Your task to perform on an android device: turn off sleep mode Image 0: 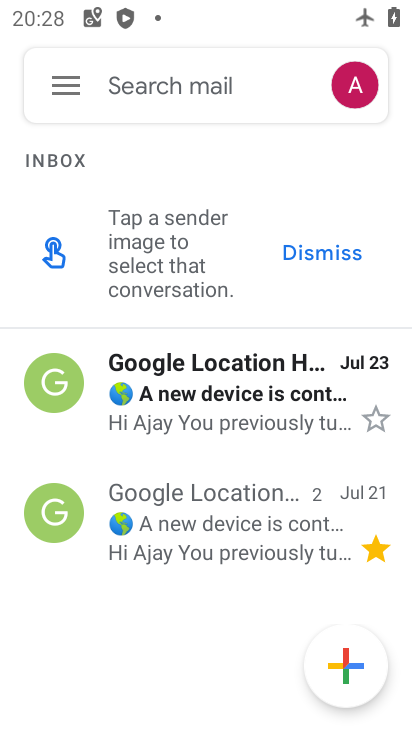
Step 0: press home button
Your task to perform on an android device: turn off sleep mode Image 1: 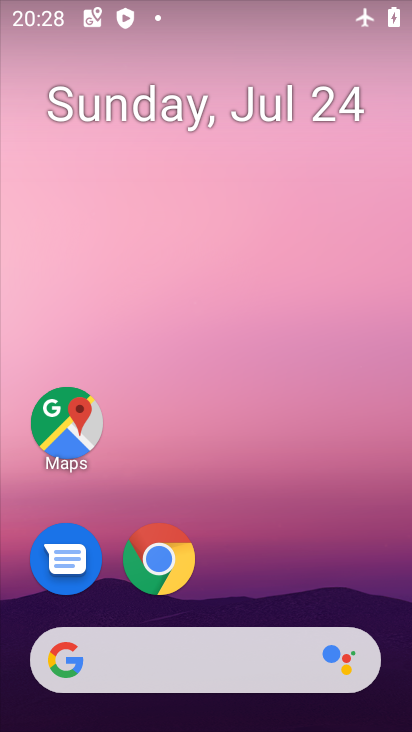
Step 1: drag from (393, 578) to (368, 206)
Your task to perform on an android device: turn off sleep mode Image 2: 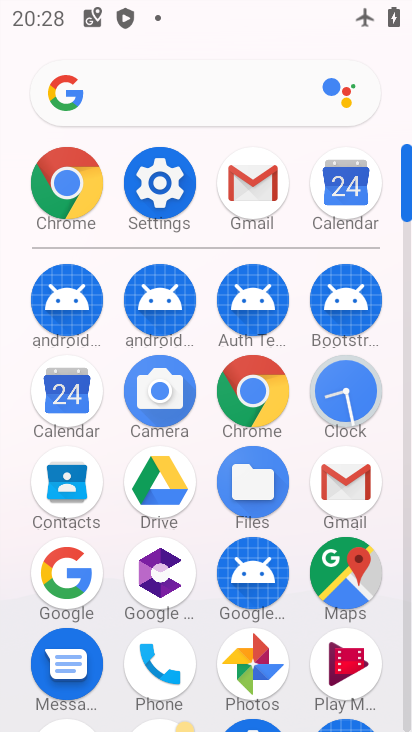
Step 2: click (177, 193)
Your task to perform on an android device: turn off sleep mode Image 3: 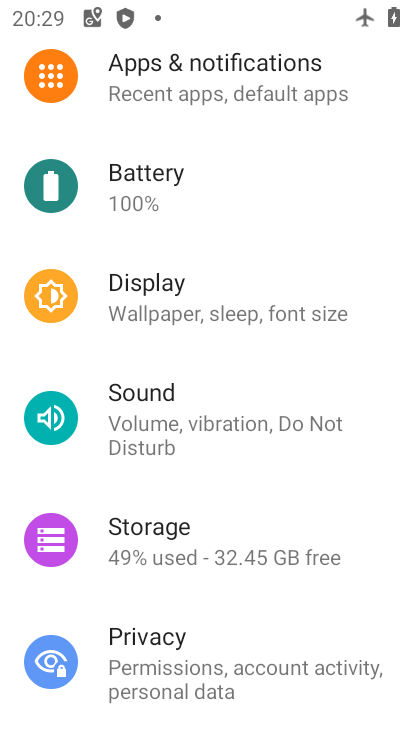
Step 3: click (223, 298)
Your task to perform on an android device: turn off sleep mode Image 4: 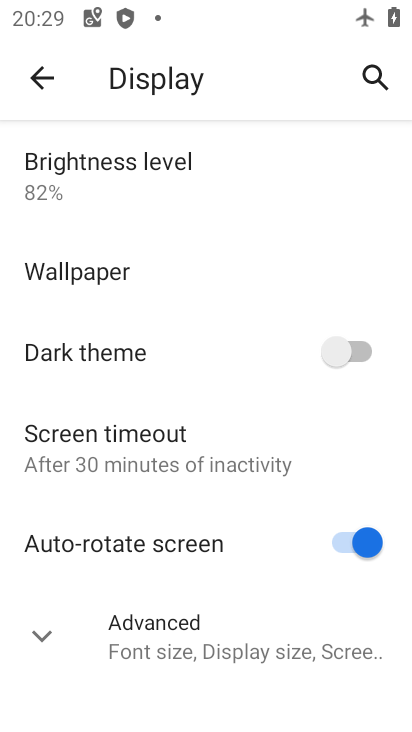
Step 4: click (174, 621)
Your task to perform on an android device: turn off sleep mode Image 5: 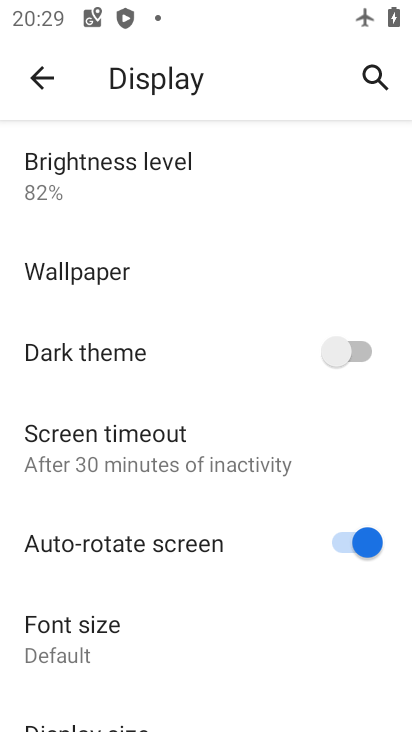
Step 5: task complete